Your task to perform on an android device: toggle sleep mode Image 0: 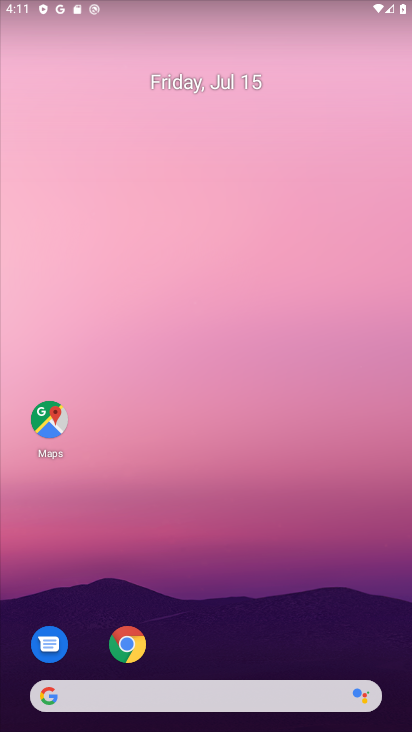
Step 0: drag from (208, 667) to (220, 147)
Your task to perform on an android device: toggle sleep mode Image 1: 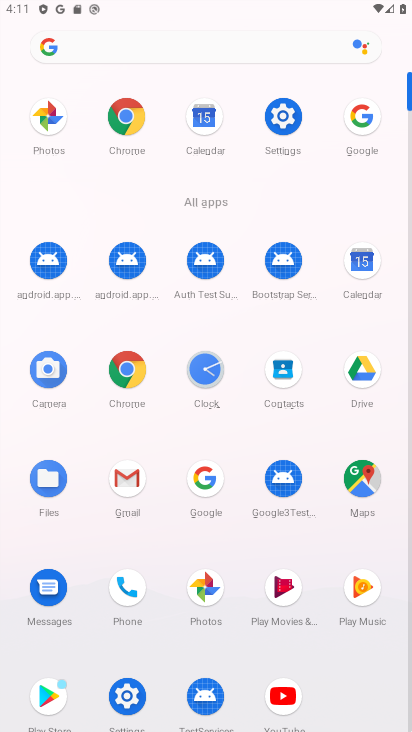
Step 1: click (284, 120)
Your task to perform on an android device: toggle sleep mode Image 2: 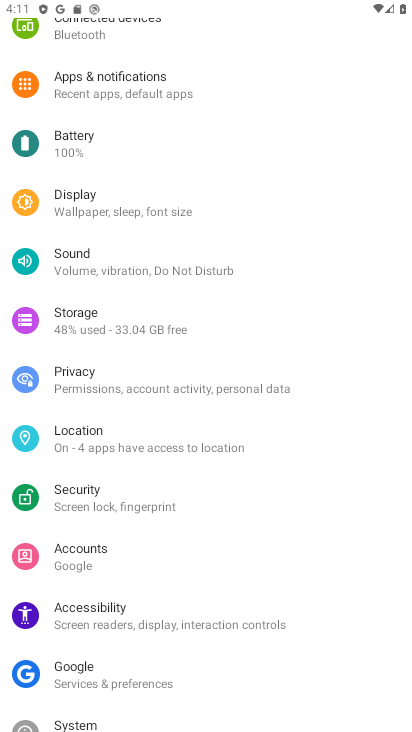
Step 2: drag from (141, 606) to (166, 133)
Your task to perform on an android device: toggle sleep mode Image 3: 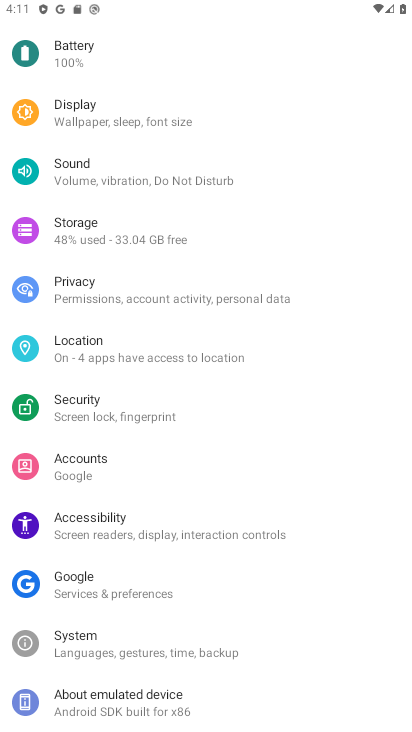
Step 3: click (80, 121)
Your task to perform on an android device: toggle sleep mode Image 4: 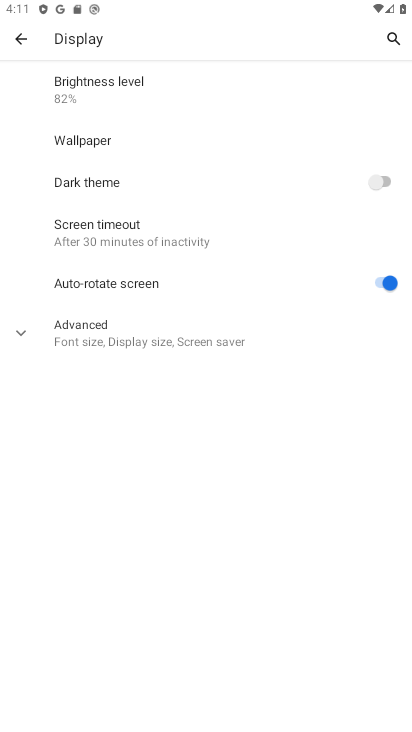
Step 4: click (140, 331)
Your task to perform on an android device: toggle sleep mode Image 5: 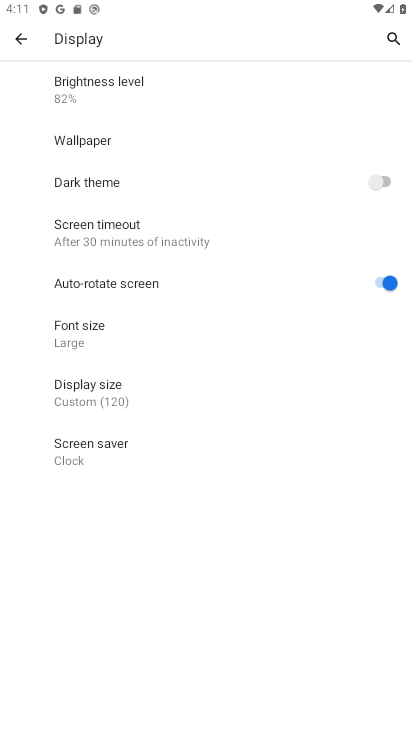
Step 5: task complete